Your task to perform on an android device: toggle translation in the chrome app Image 0: 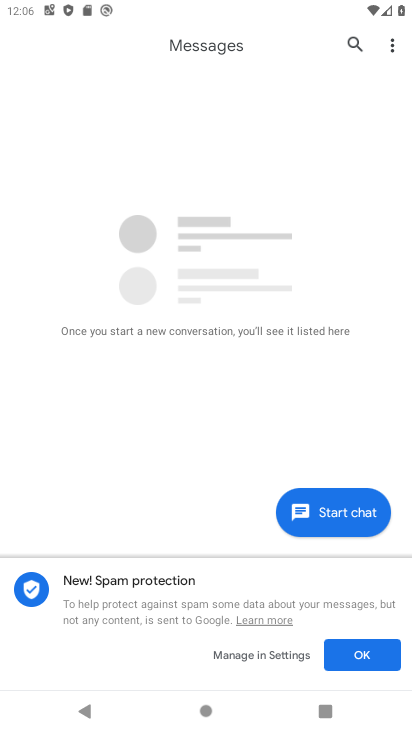
Step 0: press home button
Your task to perform on an android device: toggle translation in the chrome app Image 1: 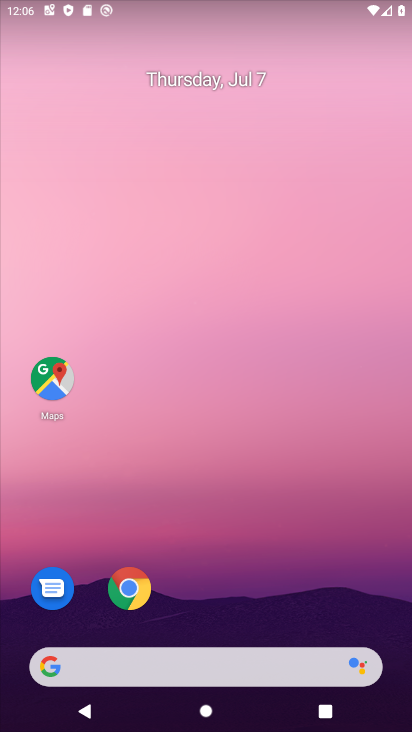
Step 1: click (127, 585)
Your task to perform on an android device: toggle translation in the chrome app Image 2: 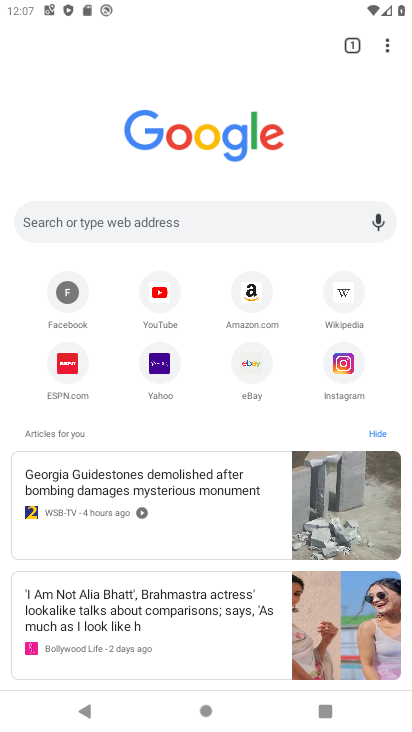
Step 2: click (387, 47)
Your task to perform on an android device: toggle translation in the chrome app Image 3: 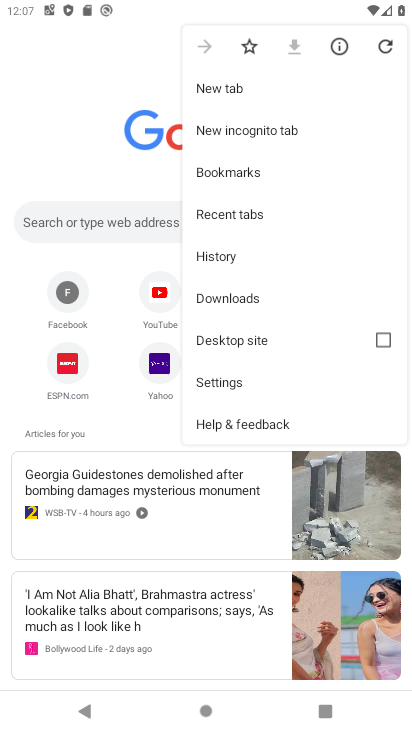
Step 3: click (227, 379)
Your task to perform on an android device: toggle translation in the chrome app Image 4: 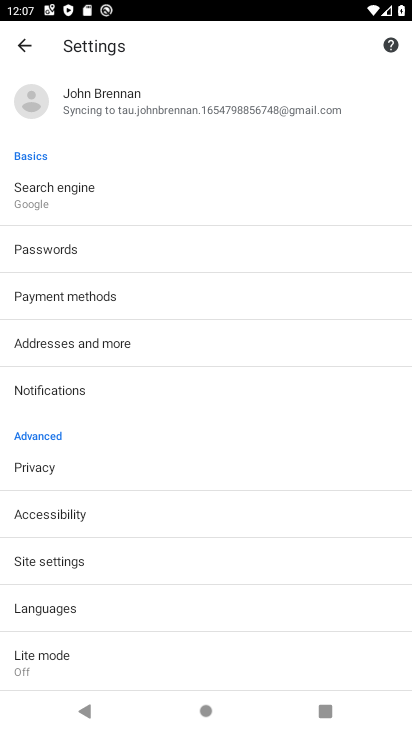
Step 4: click (78, 603)
Your task to perform on an android device: toggle translation in the chrome app Image 5: 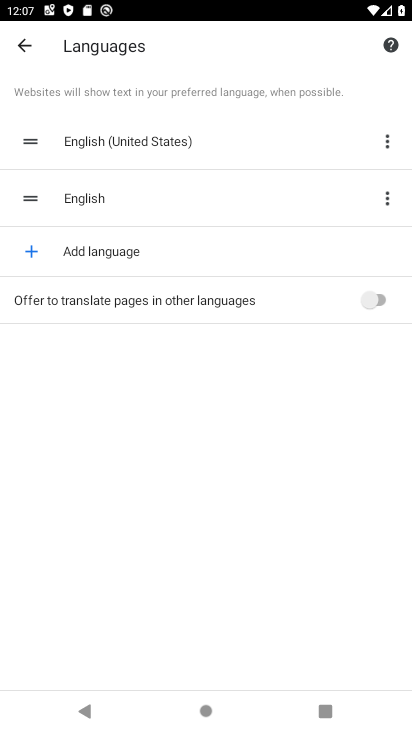
Step 5: click (381, 299)
Your task to perform on an android device: toggle translation in the chrome app Image 6: 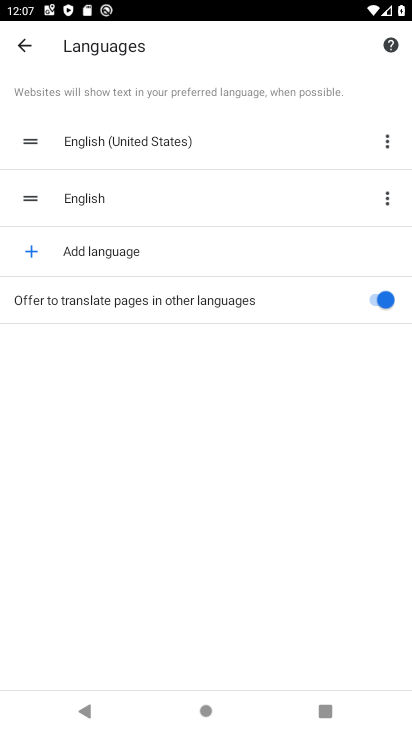
Step 6: task complete